Your task to perform on an android device: Search for Italian restaurants on Maps Image 0: 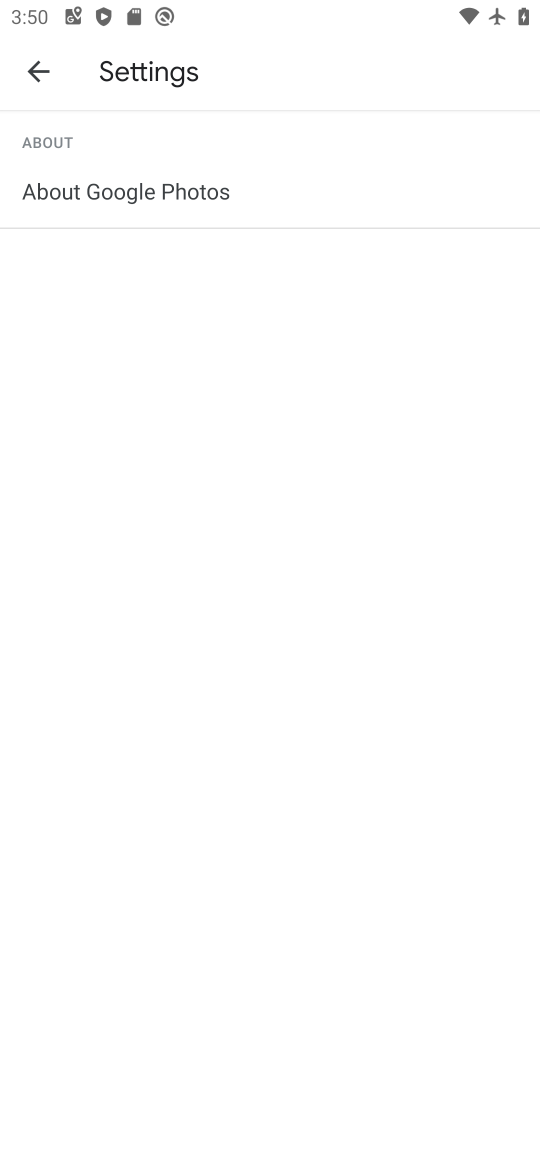
Step 0: press home button
Your task to perform on an android device: Search for Italian restaurants on Maps Image 1: 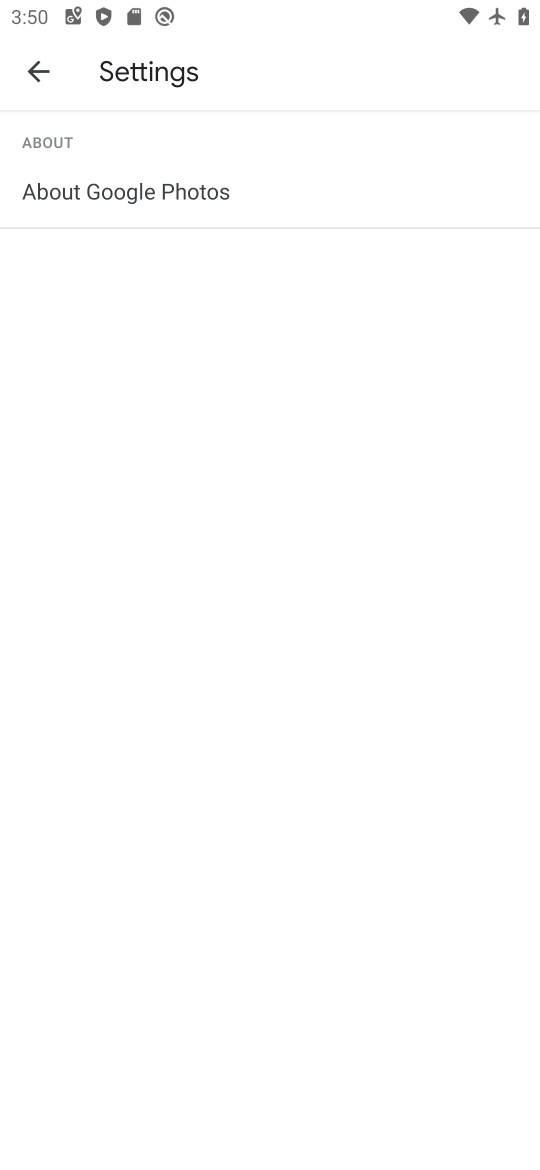
Step 1: press home button
Your task to perform on an android device: Search for Italian restaurants on Maps Image 2: 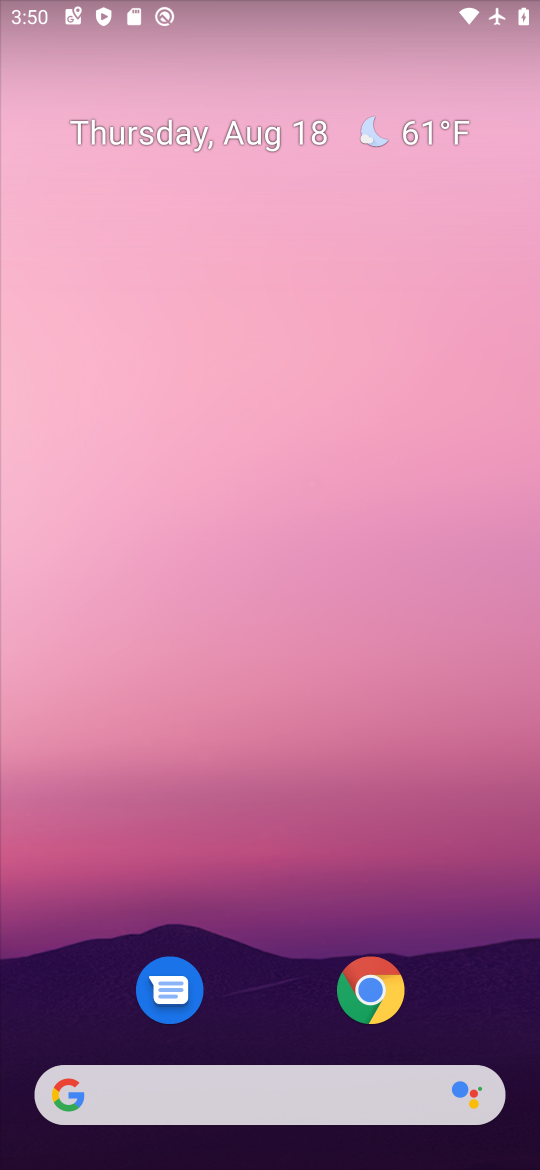
Step 2: drag from (342, 874) to (494, 137)
Your task to perform on an android device: Search for Italian restaurants on Maps Image 3: 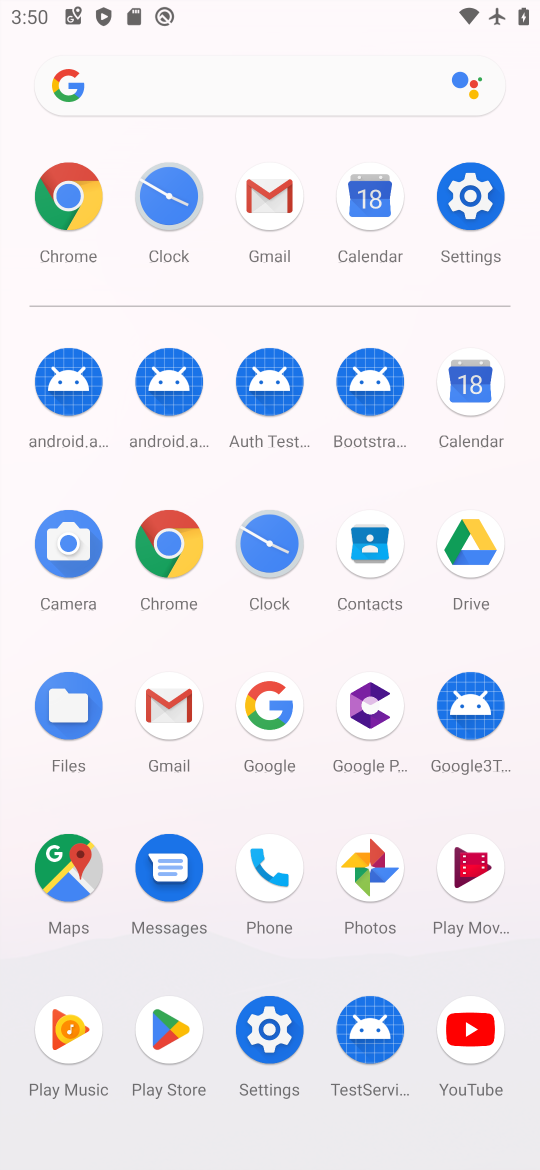
Step 3: click (54, 863)
Your task to perform on an android device: Search for Italian restaurants on Maps Image 4: 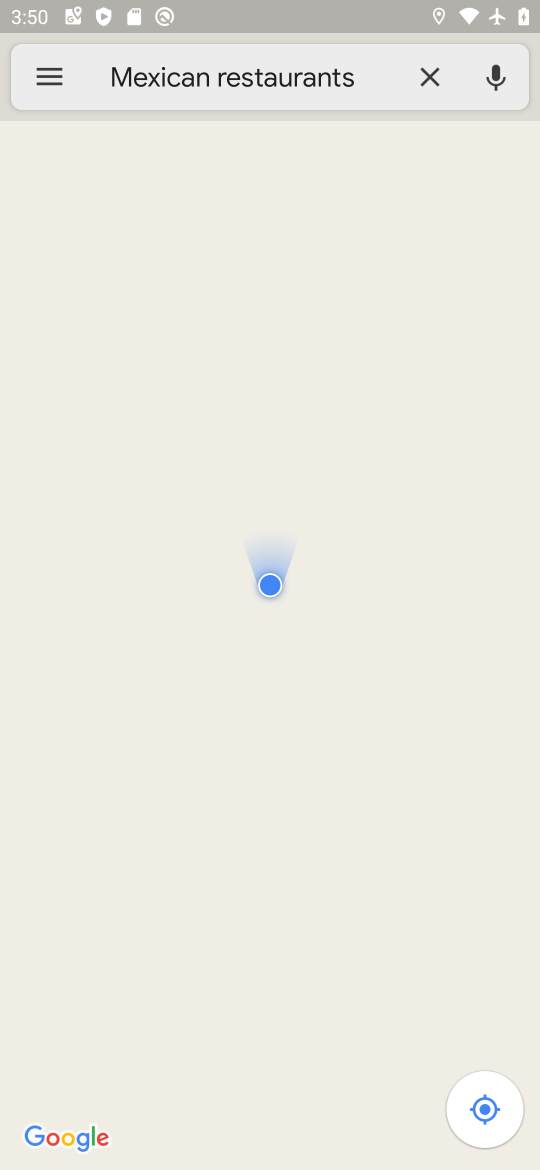
Step 4: click (437, 66)
Your task to perform on an android device: Search for Italian restaurants on Maps Image 5: 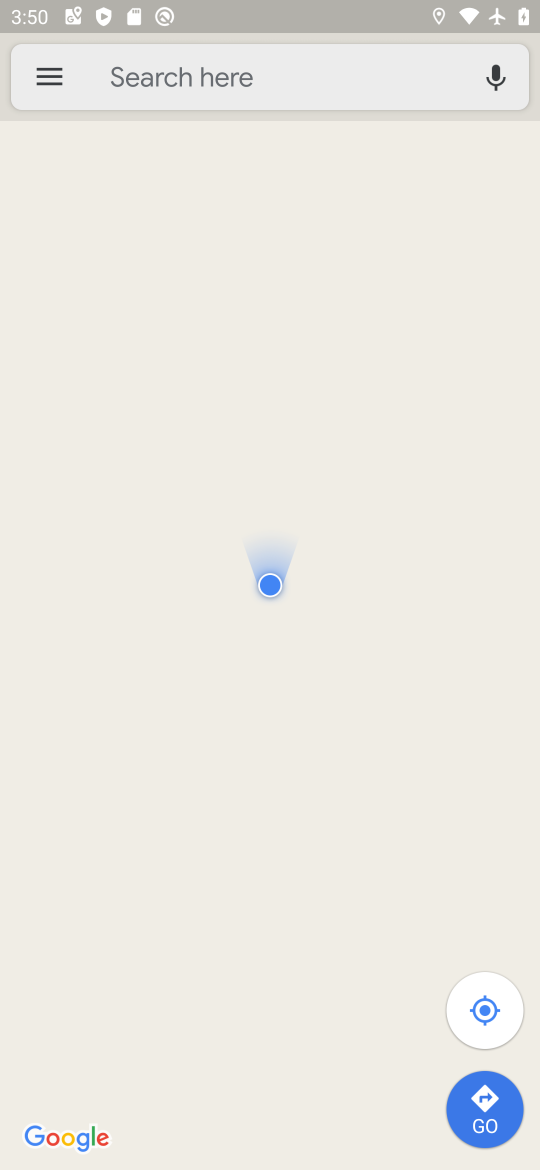
Step 5: click (272, 79)
Your task to perform on an android device: Search for Italian restaurants on Maps Image 6: 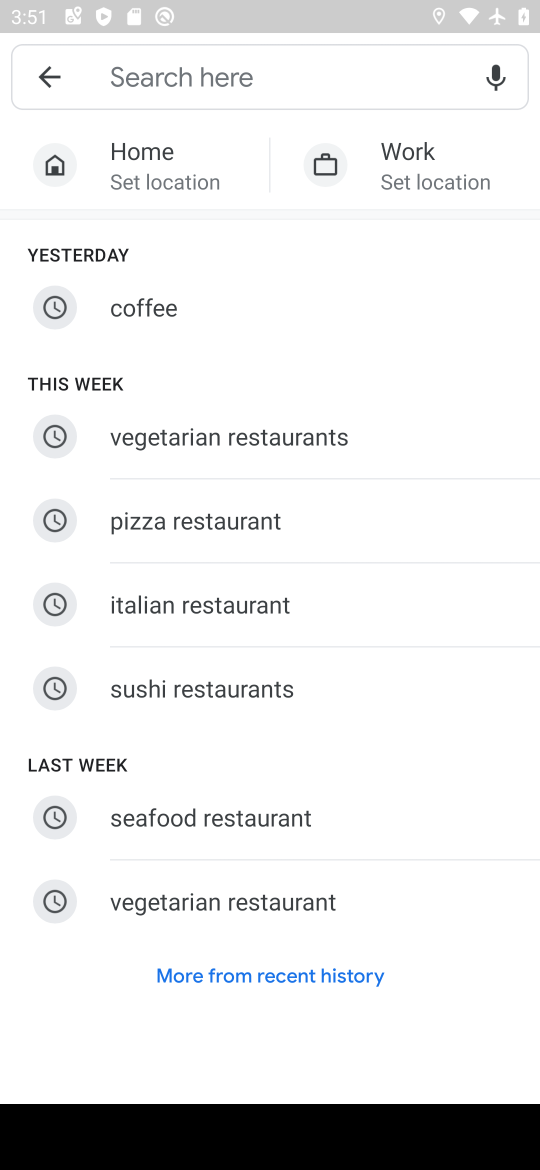
Step 6: type "Italian  restaurants"
Your task to perform on an android device: Search for Italian restaurants on Maps Image 7: 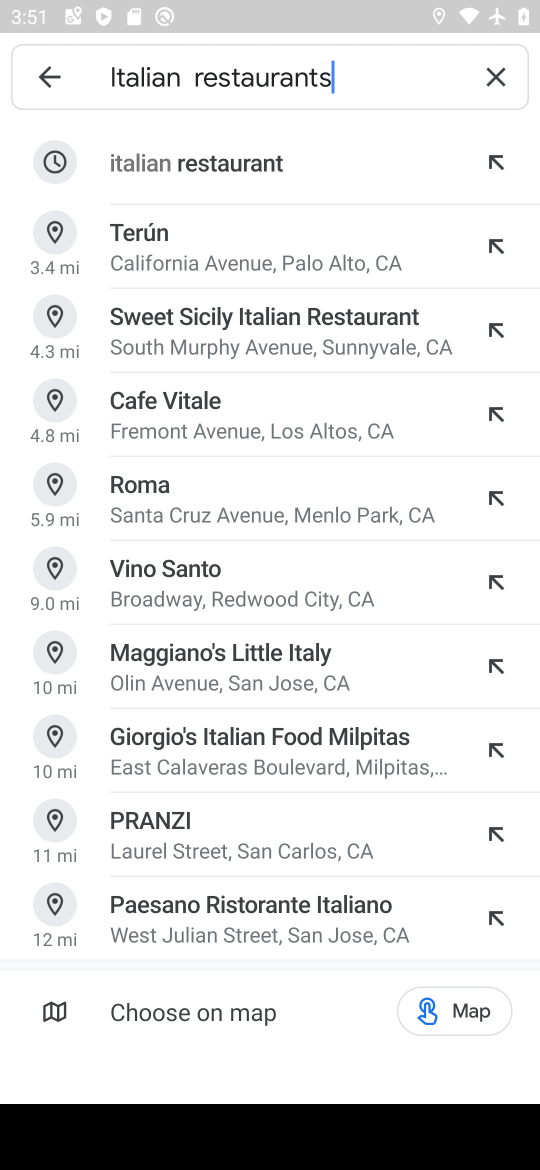
Step 7: press enter
Your task to perform on an android device: Search for Italian restaurants on Maps Image 8: 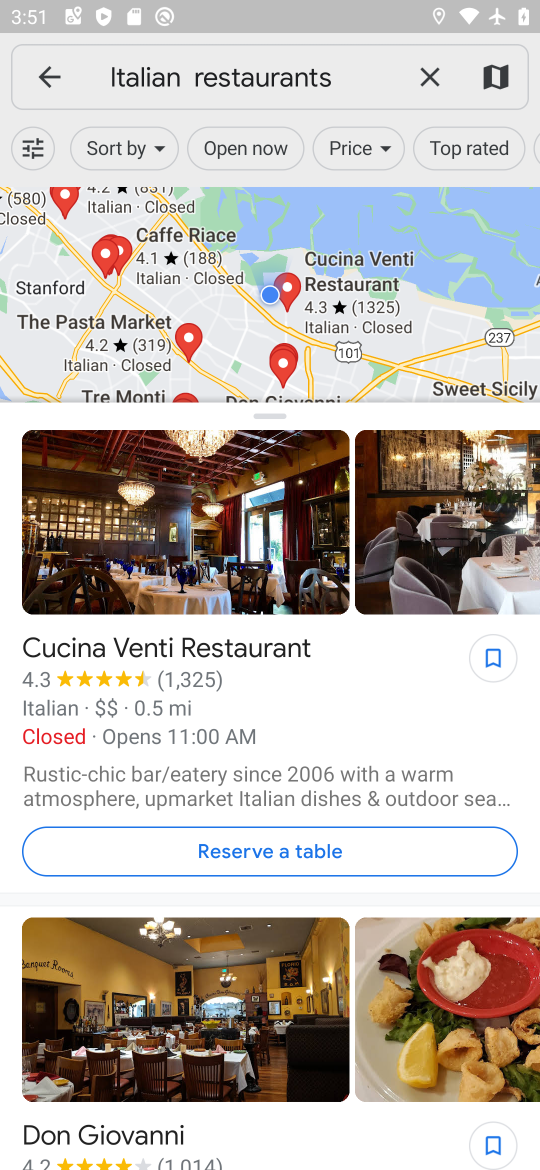
Step 8: task complete